Your task to perform on an android device: star an email in the gmail app Image 0: 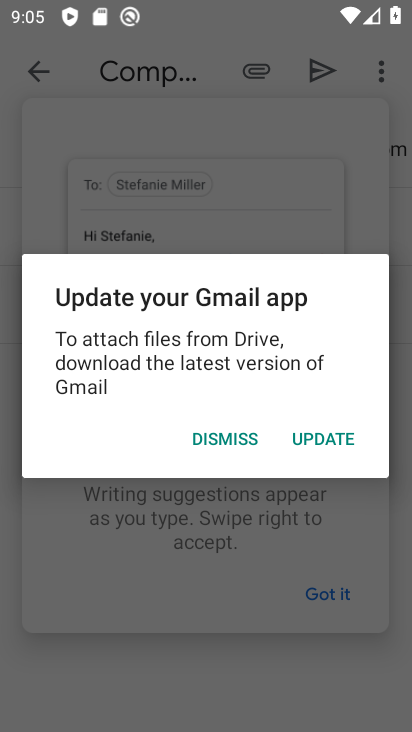
Step 0: press home button
Your task to perform on an android device: star an email in the gmail app Image 1: 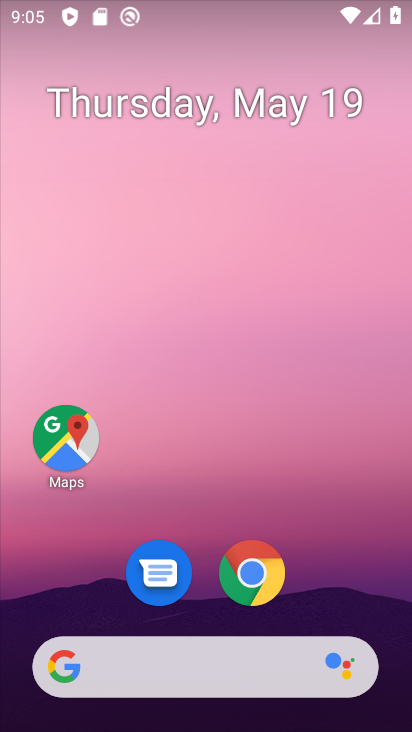
Step 1: drag from (205, 620) to (224, 167)
Your task to perform on an android device: star an email in the gmail app Image 2: 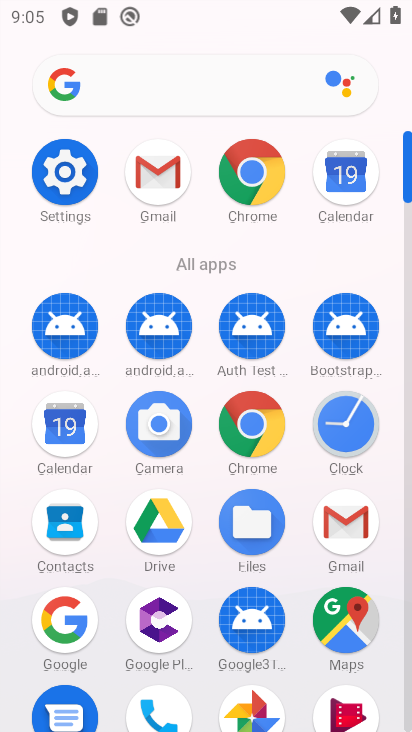
Step 2: click (335, 500)
Your task to perform on an android device: star an email in the gmail app Image 3: 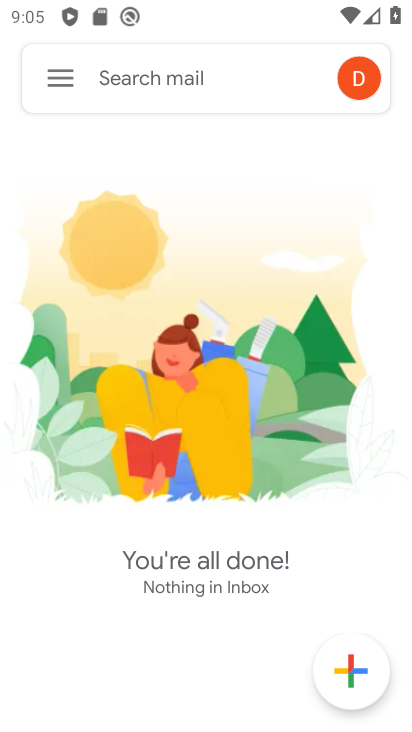
Step 3: click (50, 76)
Your task to perform on an android device: star an email in the gmail app Image 4: 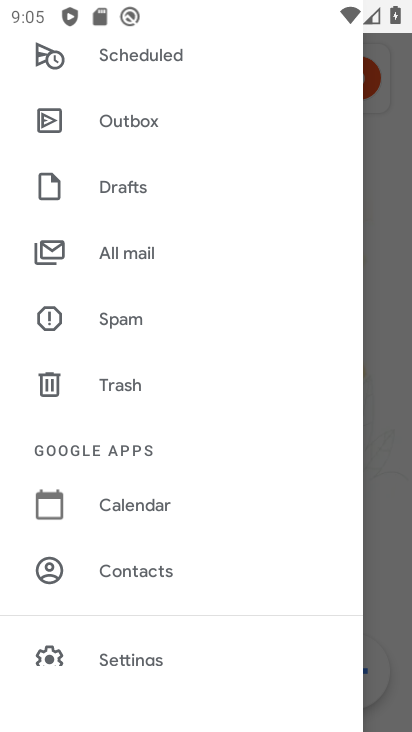
Step 4: drag from (164, 617) to (189, 313)
Your task to perform on an android device: star an email in the gmail app Image 5: 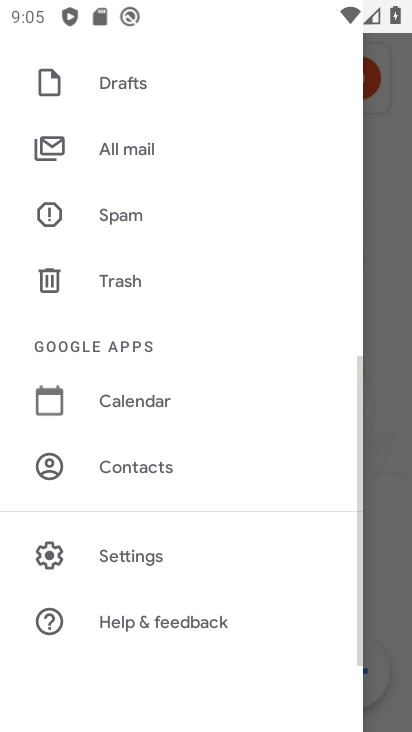
Step 5: click (129, 153)
Your task to perform on an android device: star an email in the gmail app Image 6: 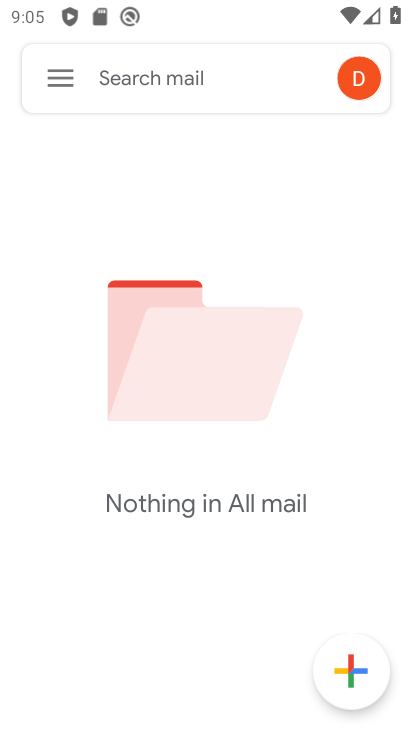
Step 6: task complete